Your task to perform on an android device: turn pop-ups off in chrome Image 0: 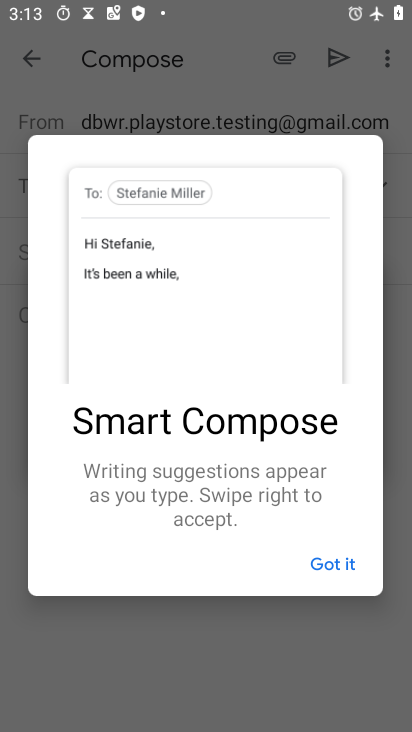
Step 0: press back button
Your task to perform on an android device: turn pop-ups off in chrome Image 1: 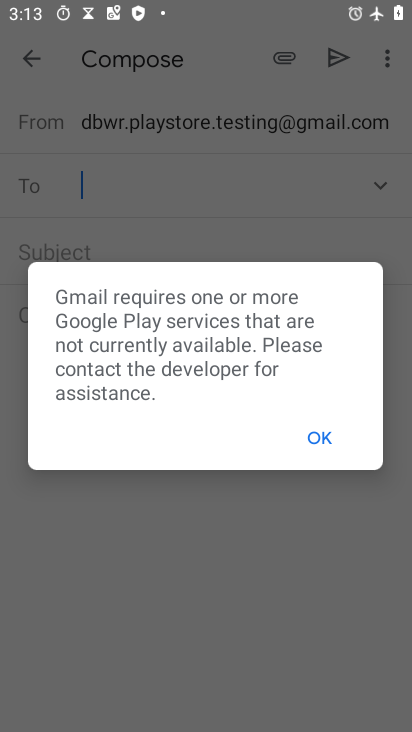
Step 1: press home button
Your task to perform on an android device: turn pop-ups off in chrome Image 2: 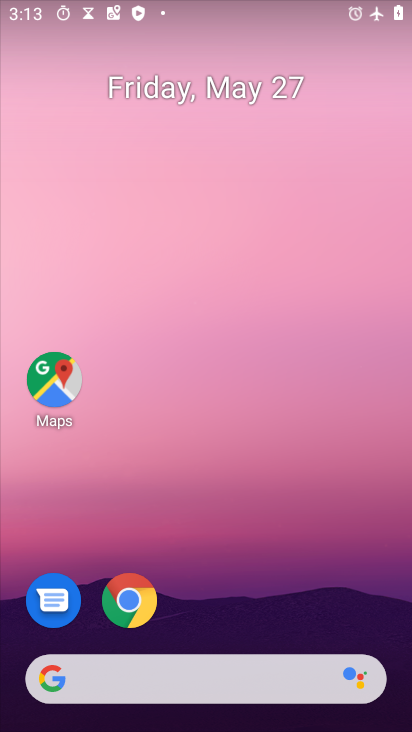
Step 2: drag from (331, 554) to (243, 62)
Your task to perform on an android device: turn pop-ups off in chrome Image 3: 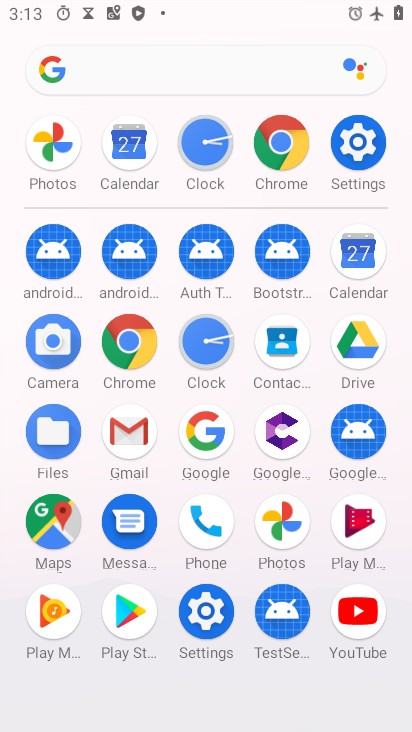
Step 3: drag from (9, 563) to (1, 215)
Your task to perform on an android device: turn pop-ups off in chrome Image 4: 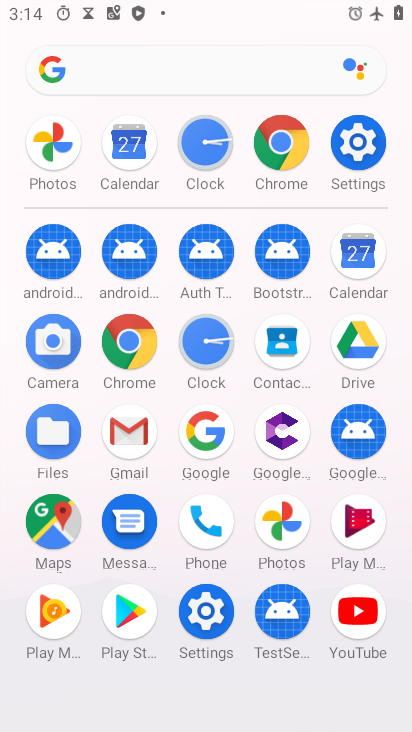
Step 4: click (129, 337)
Your task to perform on an android device: turn pop-ups off in chrome Image 5: 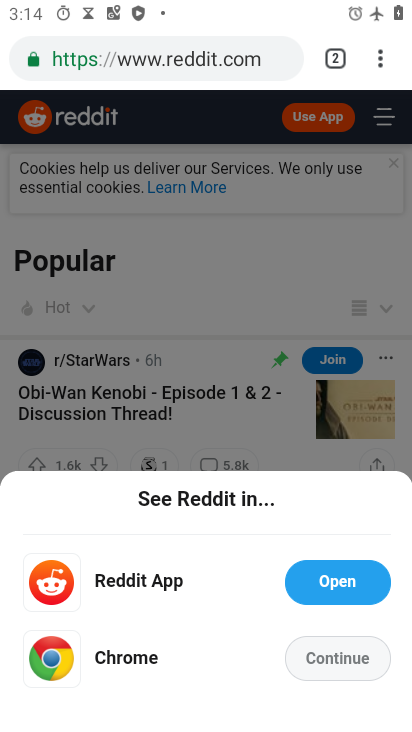
Step 5: drag from (379, 48) to (168, 629)
Your task to perform on an android device: turn pop-ups off in chrome Image 6: 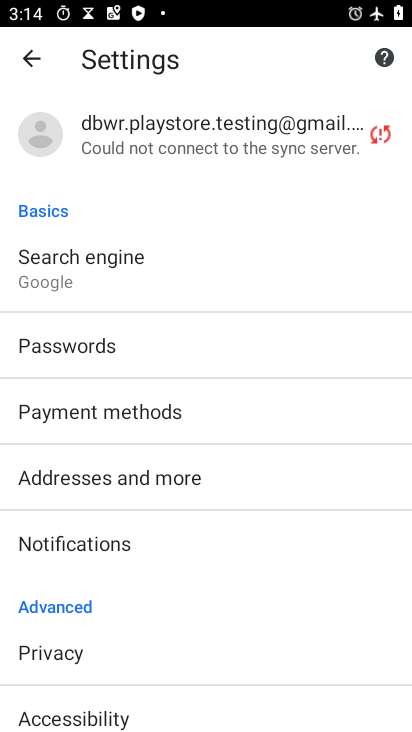
Step 6: drag from (229, 579) to (252, 187)
Your task to perform on an android device: turn pop-ups off in chrome Image 7: 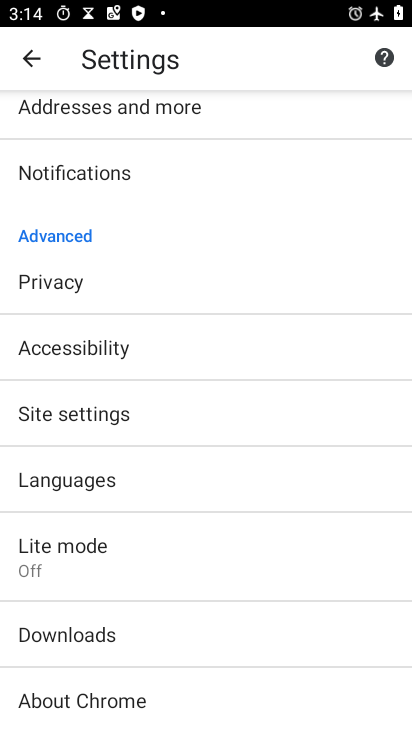
Step 7: click (157, 425)
Your task to perform on an android device: turn pop-ups off in chrome Image 8: 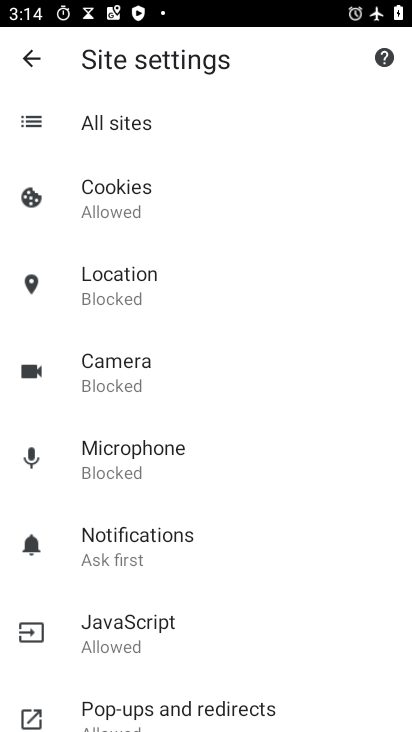
Step 8: drag from (233, 535) to (228, 204)
Your task to perform on an android device: turn pop-ups off in chrome Image 9: 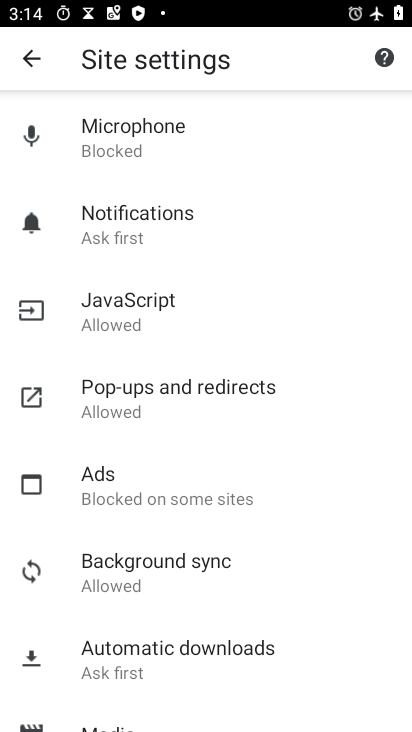
Step 9: click (157, 381)
Your task to perform on an android device: turn pop-ups off in chrome Image 10: 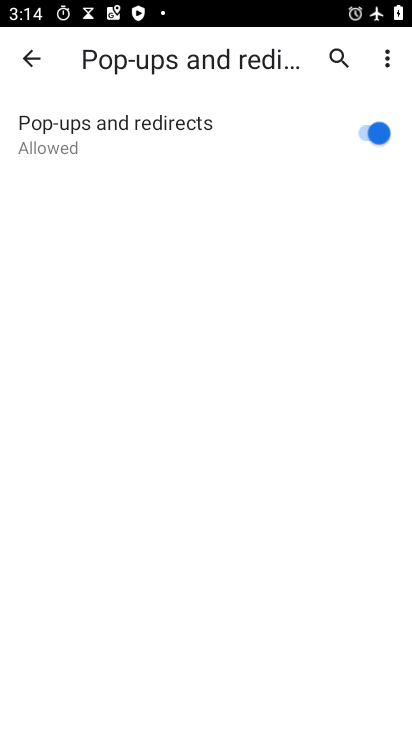
Step 10: click (359, 133)
Your task to perform on an android device: turn pop-ups off in chrome Image 11: 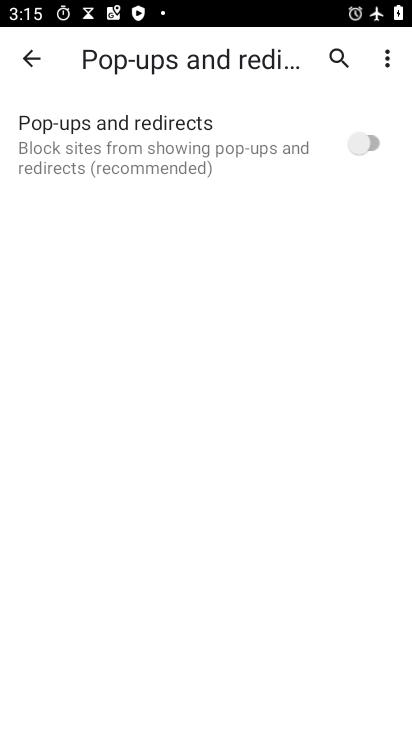
Step 11: task complete